Your task to perform on an android device: Go to network settings Image 0: 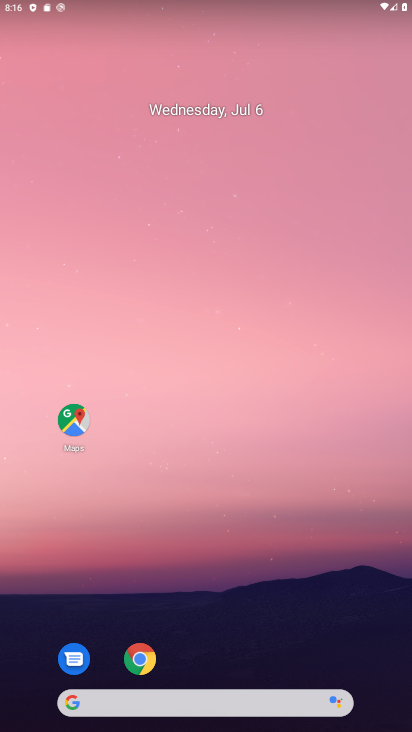
Step 0: drag from (218, 512) to (259, 64)
Your task to perform on an android device: Go to network settings Image 1: 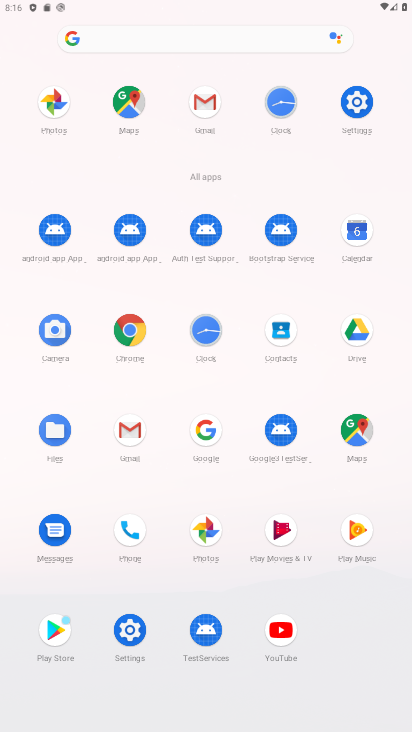
Step 1: click (358, 99)
Your task to perform on an android device: Go to network settings Image 2: 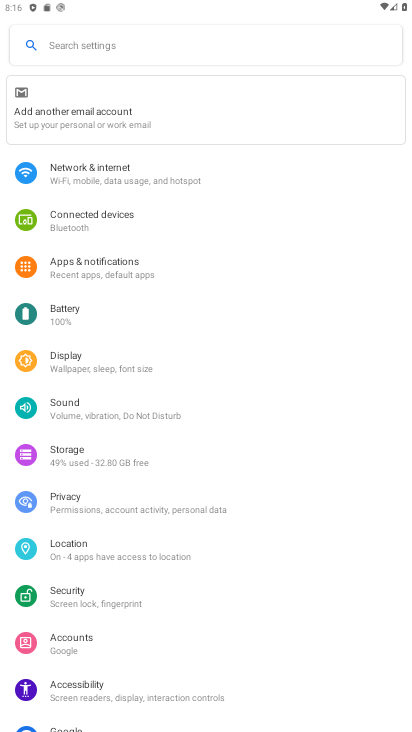
Step 2: click (93, 161)
Your task to perform on an android device: Go to network settings Image 3: 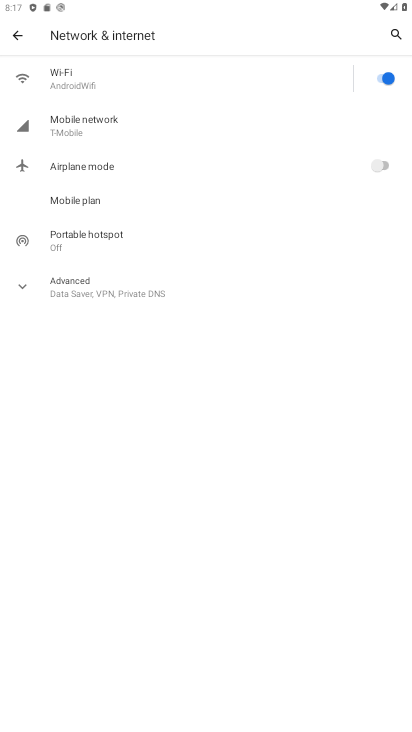
Step 3: click (67, 124)
Your task to perform on an android device: Go to network settings Image 4: 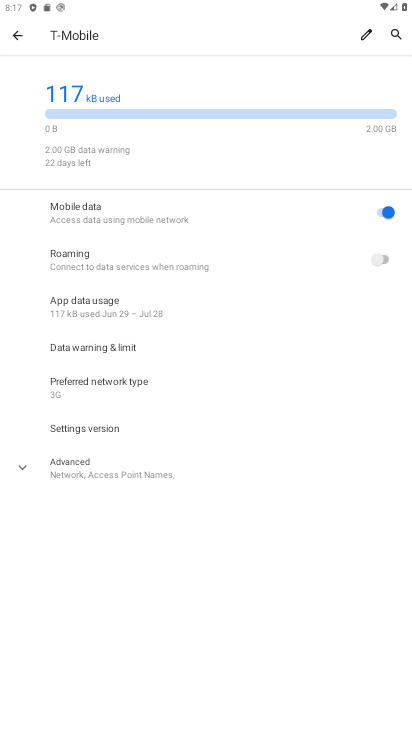
Step 4: click (46, 467)
Your task to perform on an android device: Go to network settings Image 5: 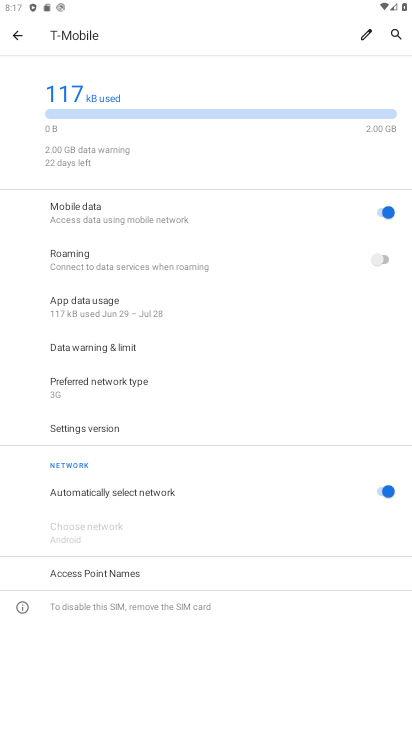
Step 5: task complete